Your task to perform on an android device: open app "eBay: The shopping marketplace" (install if not already installed) and enter user name: "articulated@icloud.com" and password: "excluding" Image 0: 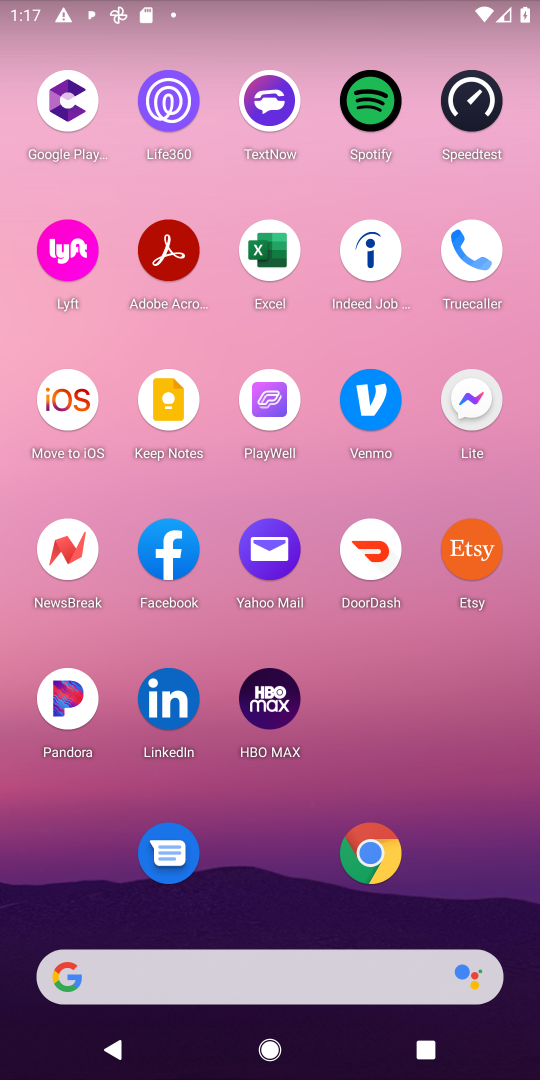
Step 0: drag from (295, 877) to (298, 242)
Your task to perform on an android device: open app "eBay: The shopping marketplace" (install if not already installed) and enter user name: "articulated@icloud.com" and password: "excluding" Image 1: 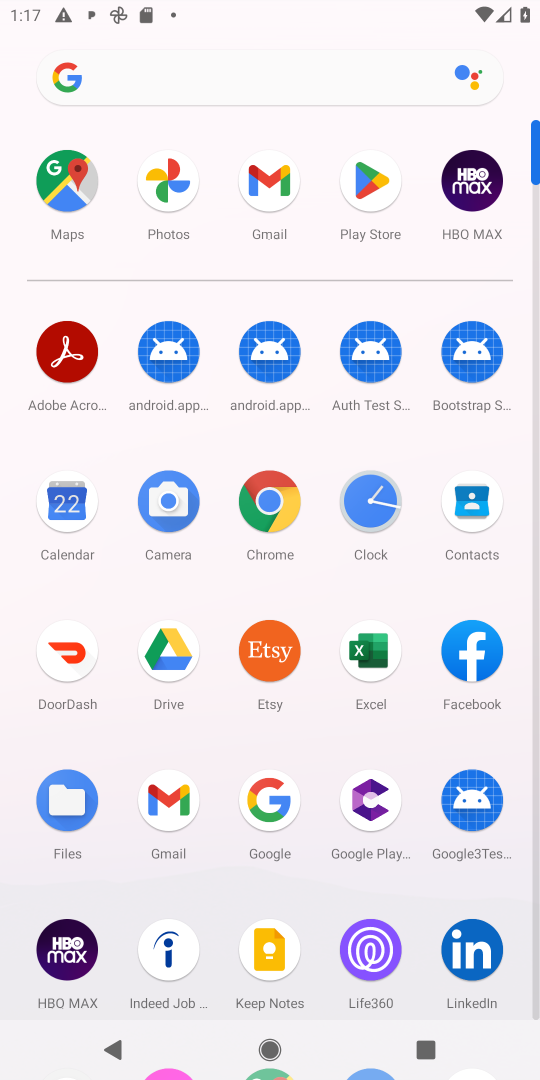
Step 1: click (357, 174)
Your task to perform on an android device: open app "eBay: The shopping marketplace" (install if not already installed) and enter user name: "articulated@icloud.com" and password: "excluding" Image 2: 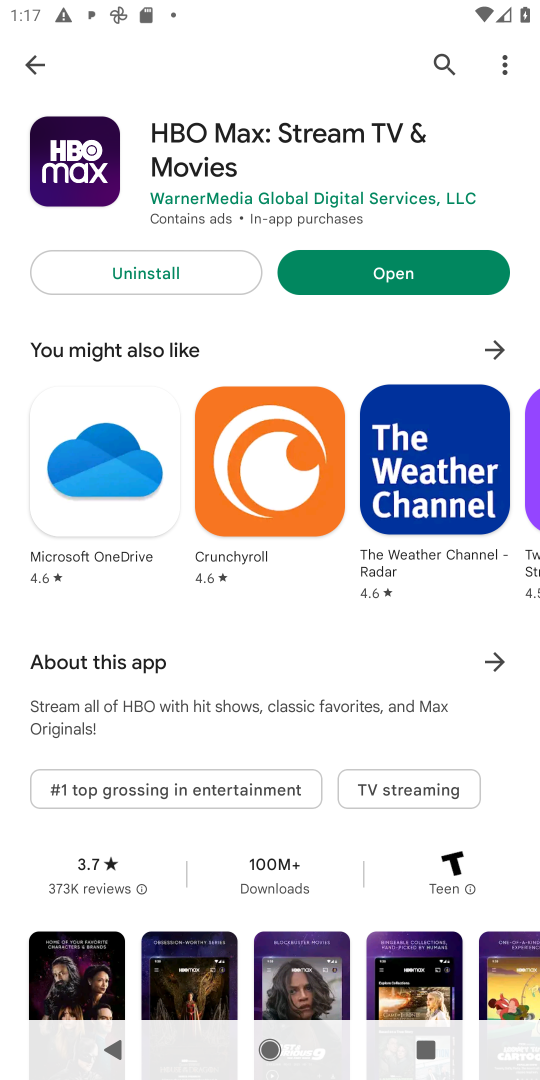
Step 2: click (19, 49)
Your task to perform on an android device: open app "eBay: The shopping marketplace" (install if not already installed) and enter user name: "articulated@icloud.com" and password: "excluding" Image 3: 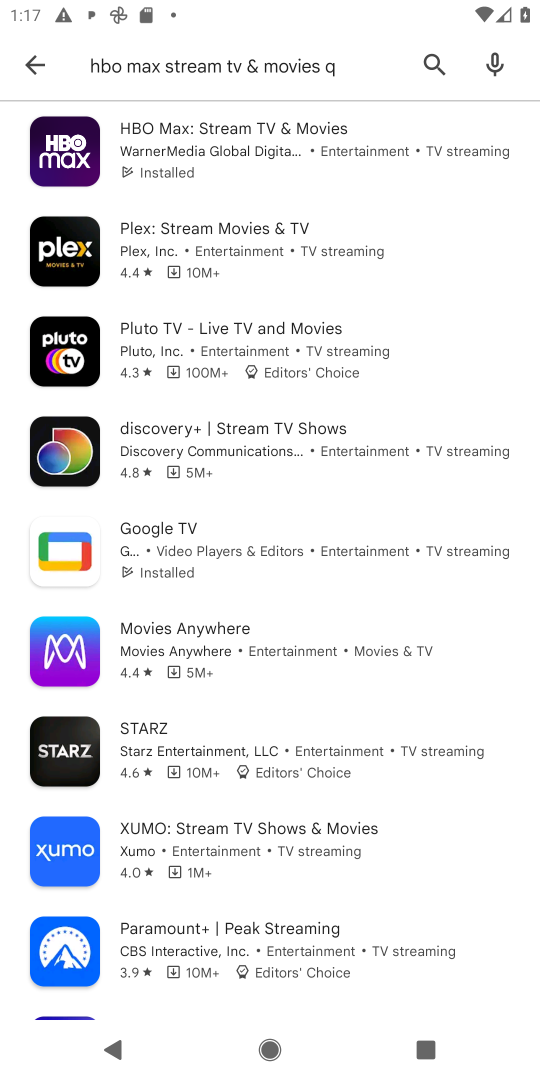
Step 3: click (49, 59)
Your task to perform on an android device: open app "eBay: The shopping marketplace" (install if not already installed) and enter user name: "articulated@icloud.com" and password: "excluding" Image 4: 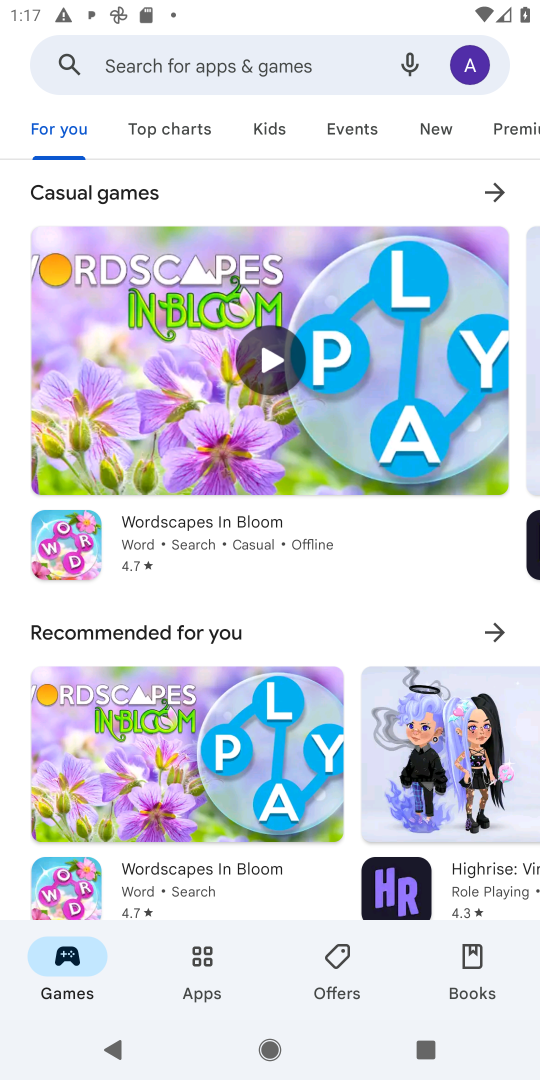
Step 4: click (253, 56)
Your task to perform on an android device: open app "eBay: The shopping marketplace" (install if not already installed) and enter user name: "articulated@icloud.com" and password: "excluding" Image 5: 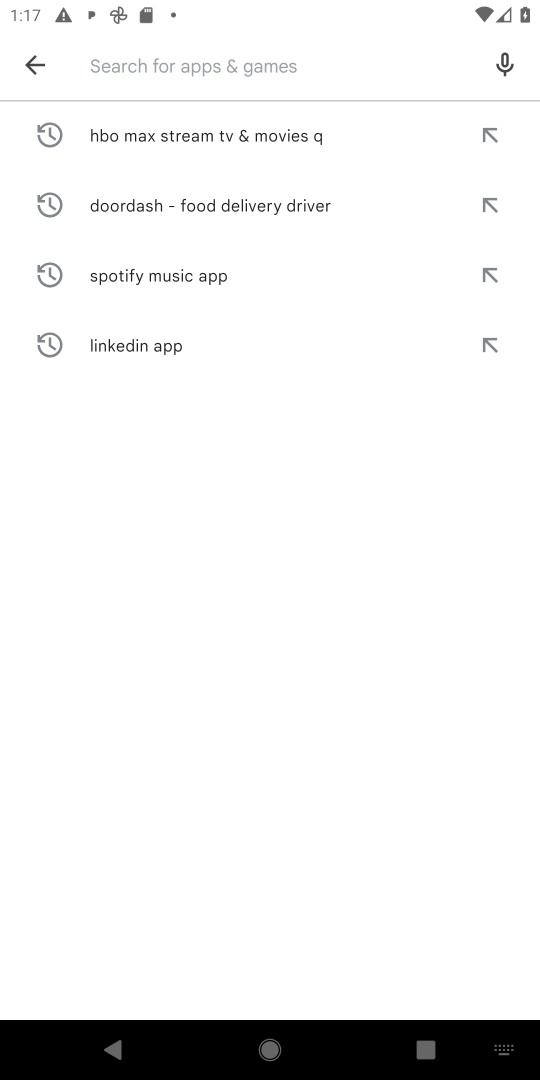
Step 5: type "eBay "
Your task to perform on an android device: open app "eBay: The shopping marketplace" (install if not already installed) and enter user name: "articulated@icloud.com" and password: "excluding" Image 6: 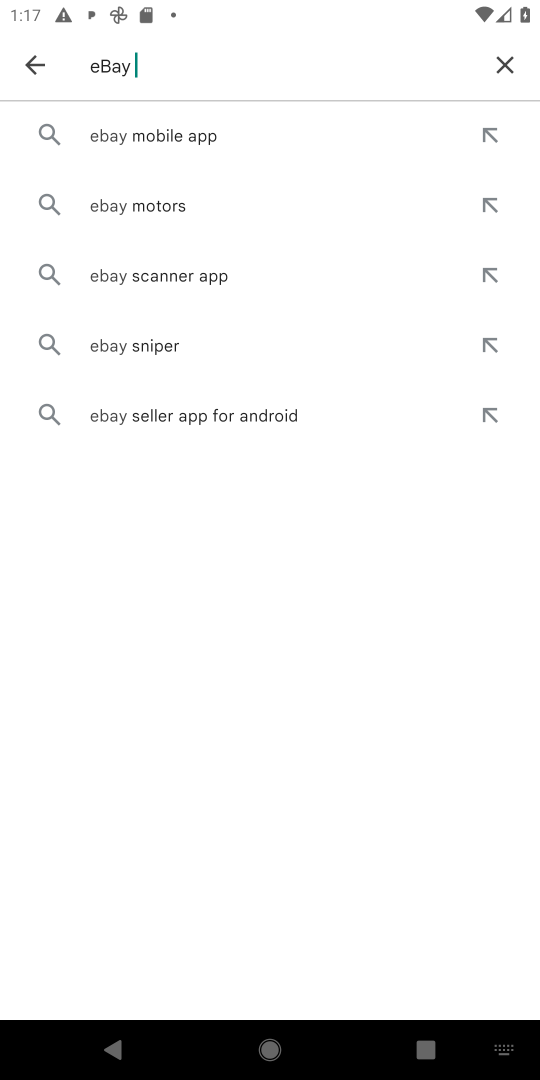
Step 6: click (108, 141)
Your task to perform on an android device: open app "eBay: The shopping marketplace" (install if not already installed) and enter user name: "articulated@icloud.com" and password: "excluding" Image 7: 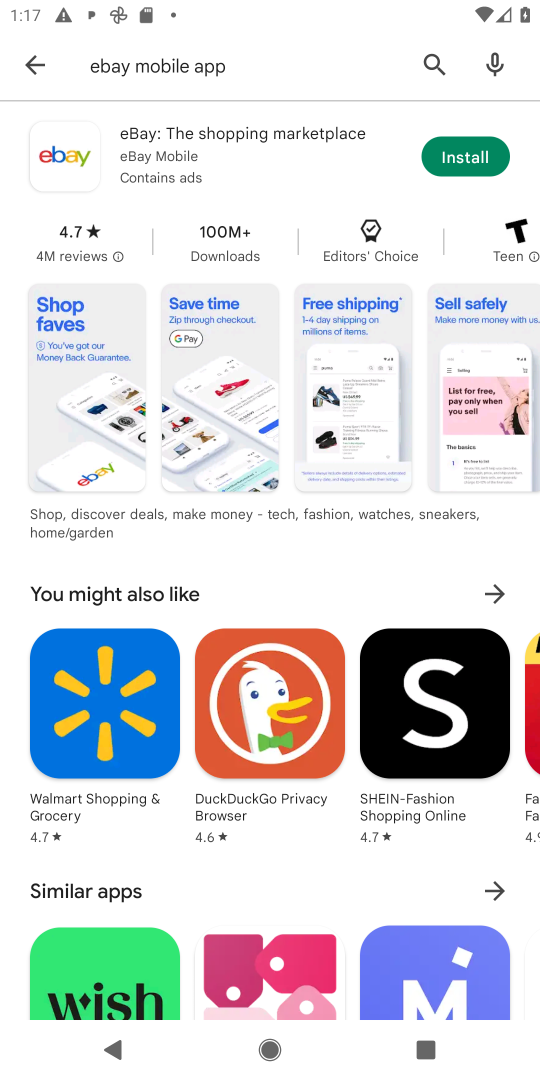
Step 7: click (479, 164)
Your task to perform on an android device: open app "eBay: The shopping marketplace" (install if not already installed) and enter user name: "articulated@icloud.com" and password: "excluding" Image 8: 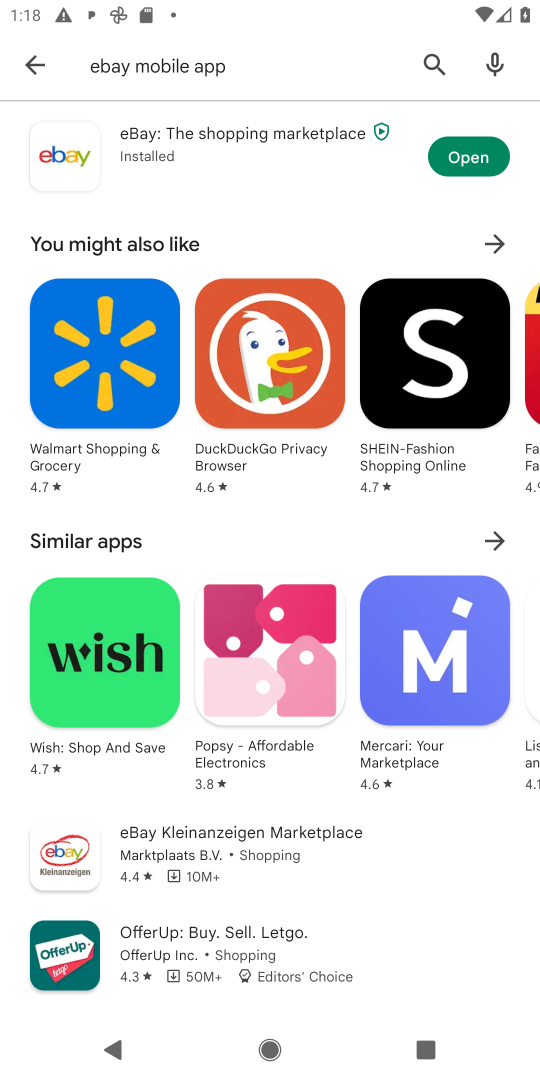
Step 8: click (495, 146)
Your task to perform on an android device: open app "eBay: The shopping marketplace" (install if not already installed) and enter user name: "articulated@icloud.com" and password: "excluding" Image 9: 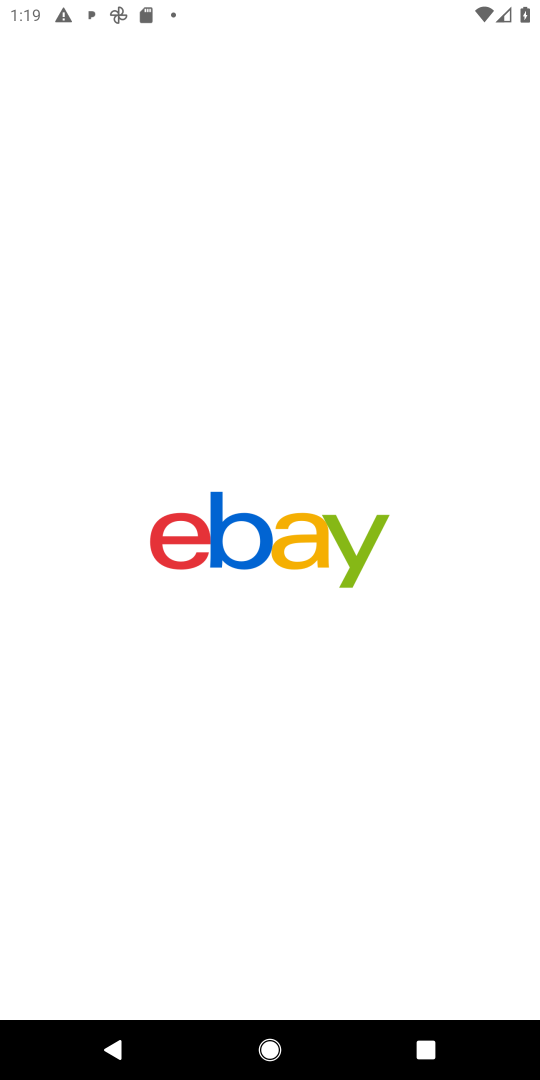
Step 9: task complete